Your task to perform on an android device: Add "razer blackwidow" to the cart on target Image 0: 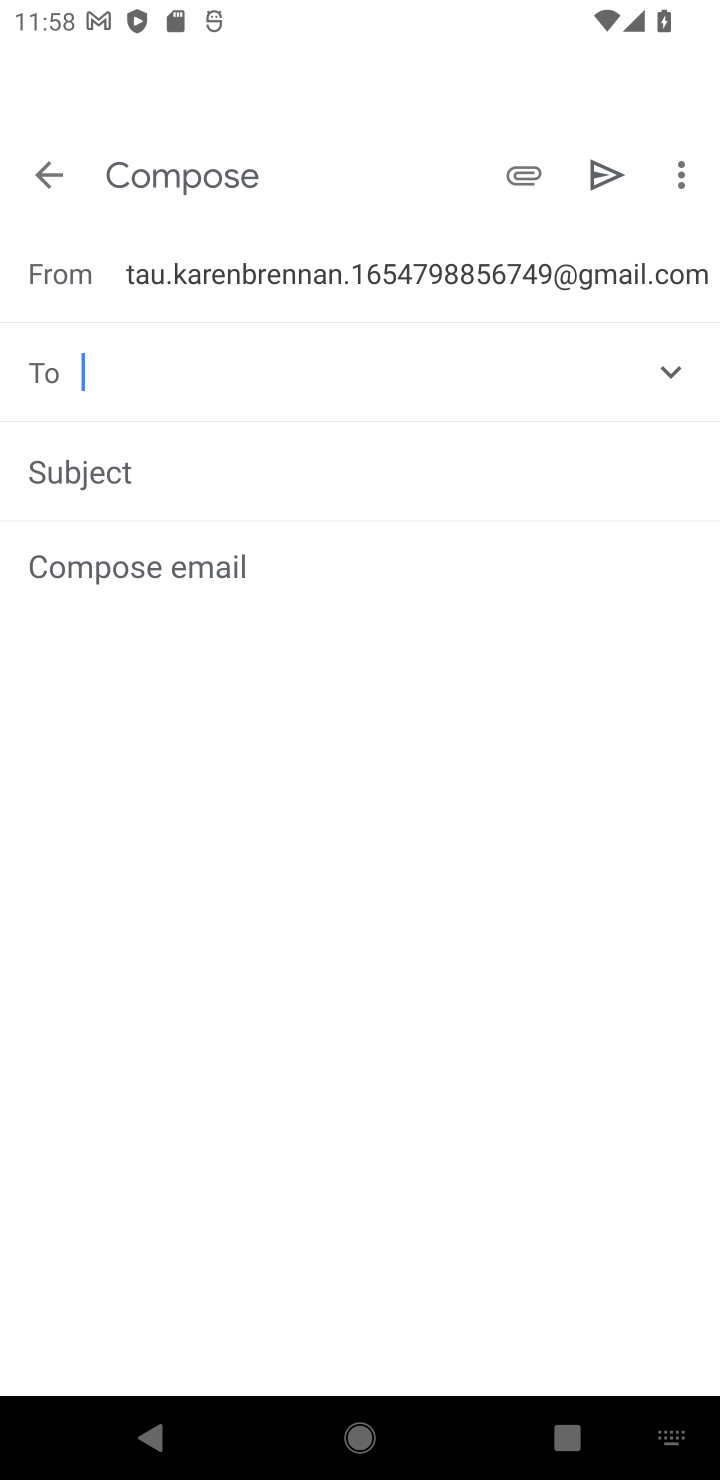
Step 0: press back button
Your task to perform on an android device: Add "razer blackwidow" to the cart on target Image 1: 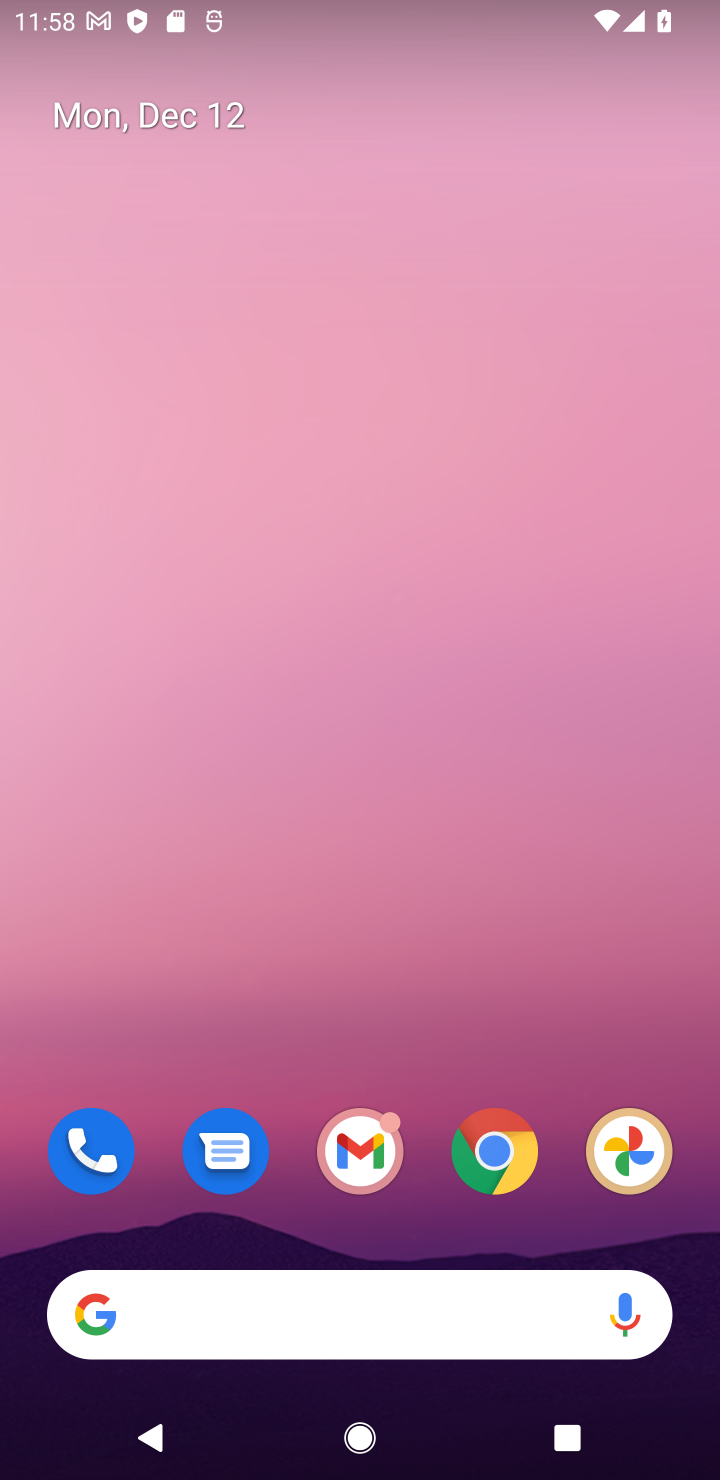
Step 1: drag from (385, 1303) to (405, 223)
Your task to perform on an android device: Add "razer blackwidow" to the cart on target Image 2: 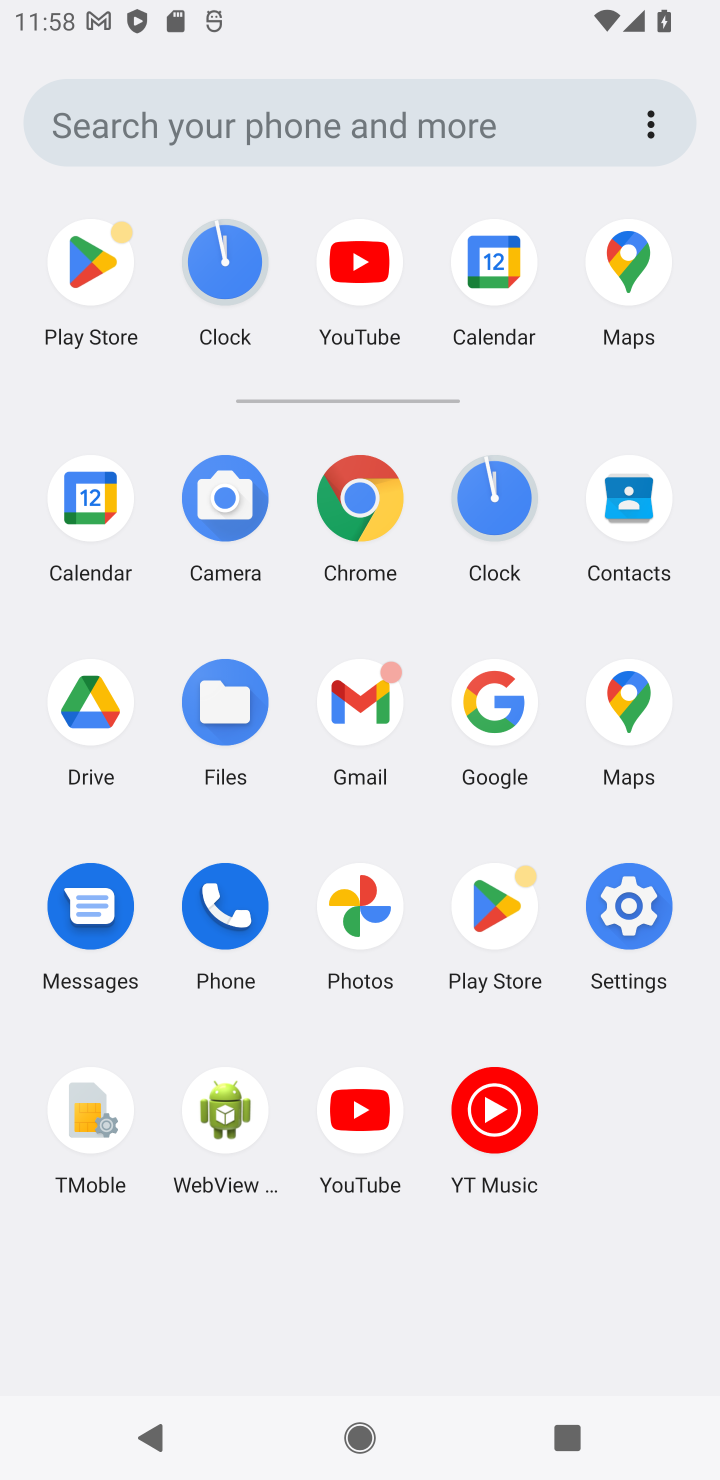
Step 2: click (487, 719)
Your task to perform on an android device: Add "razer blackwidow" to the cart on target Image 3: 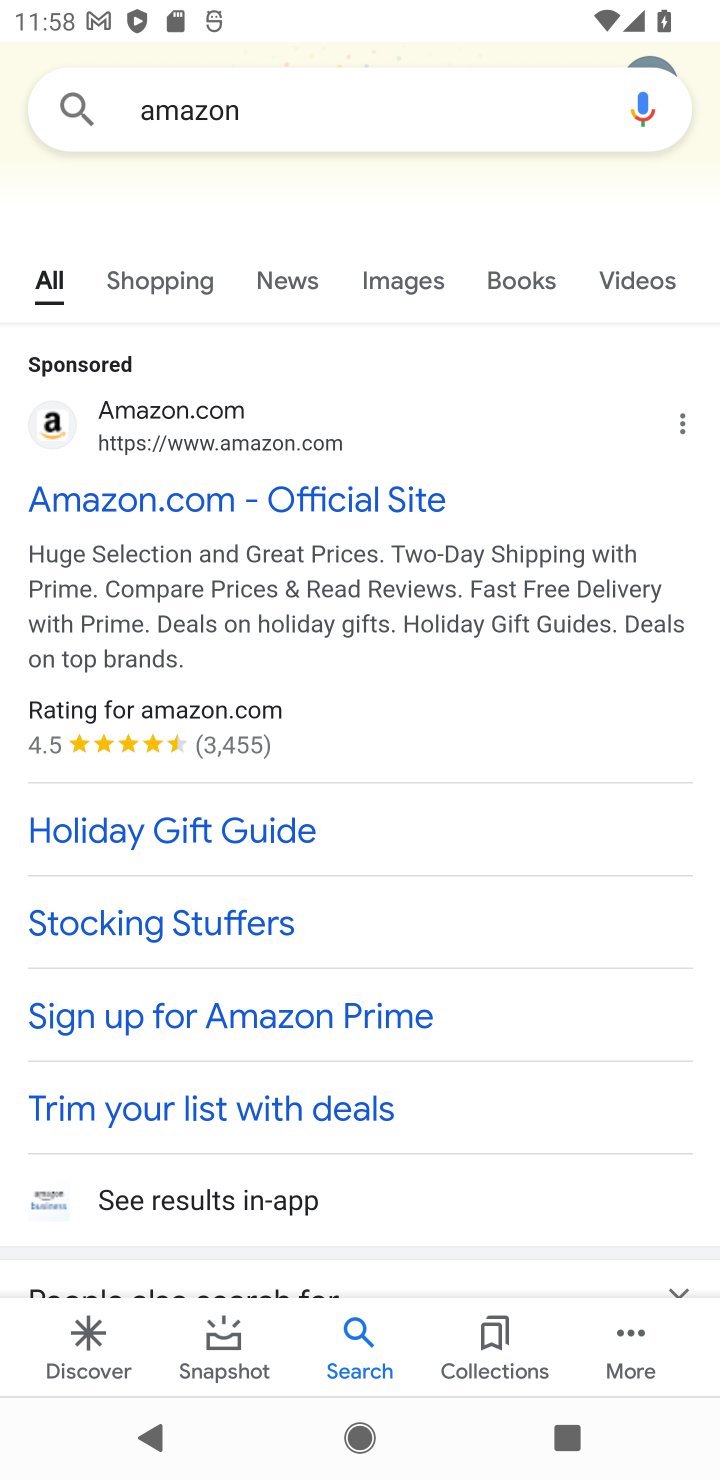
Step 3: click (184, 115)
Your task to perform on an android device: Add "razer blackwidow" to the cart on target Image 4: 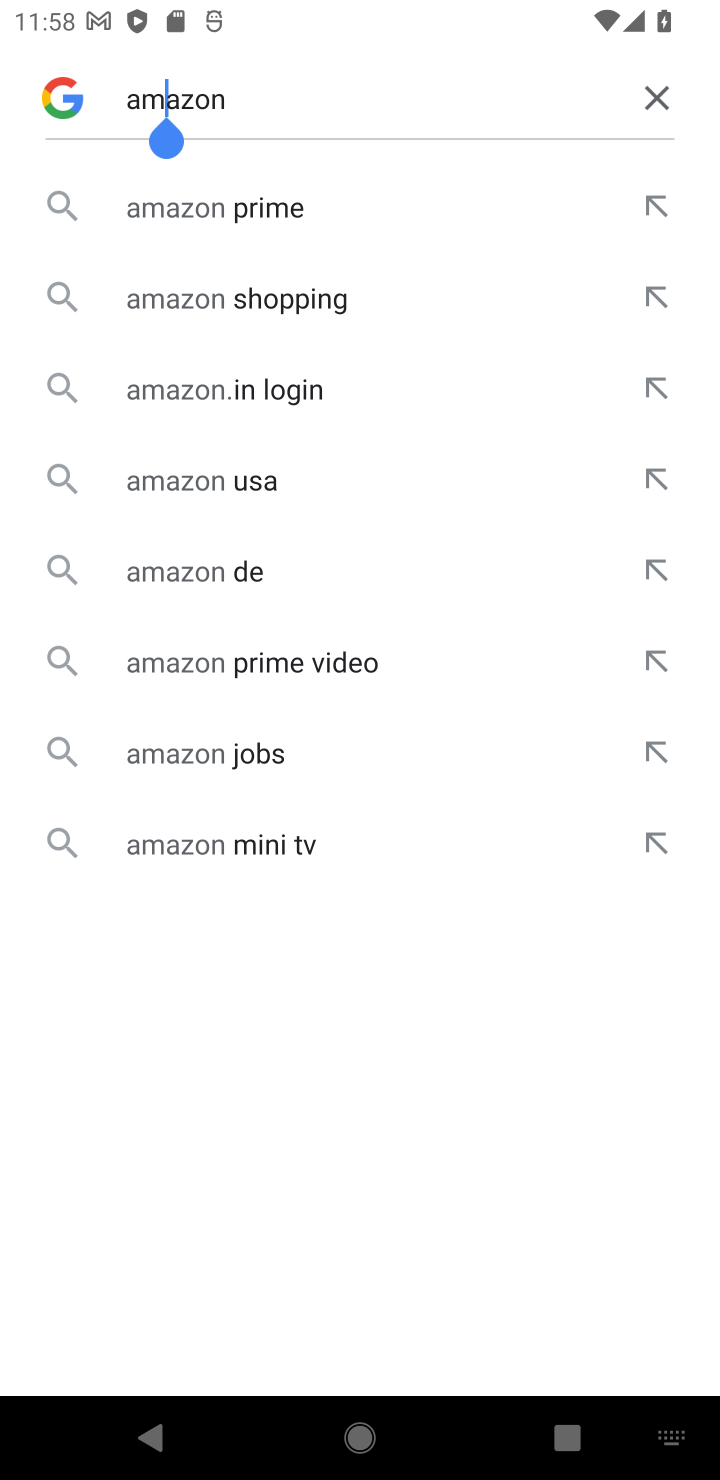
Step 4: click (645, 101)
Your task to perform on an android device: Add "razer blackwidow" to the cart on target Image 5: 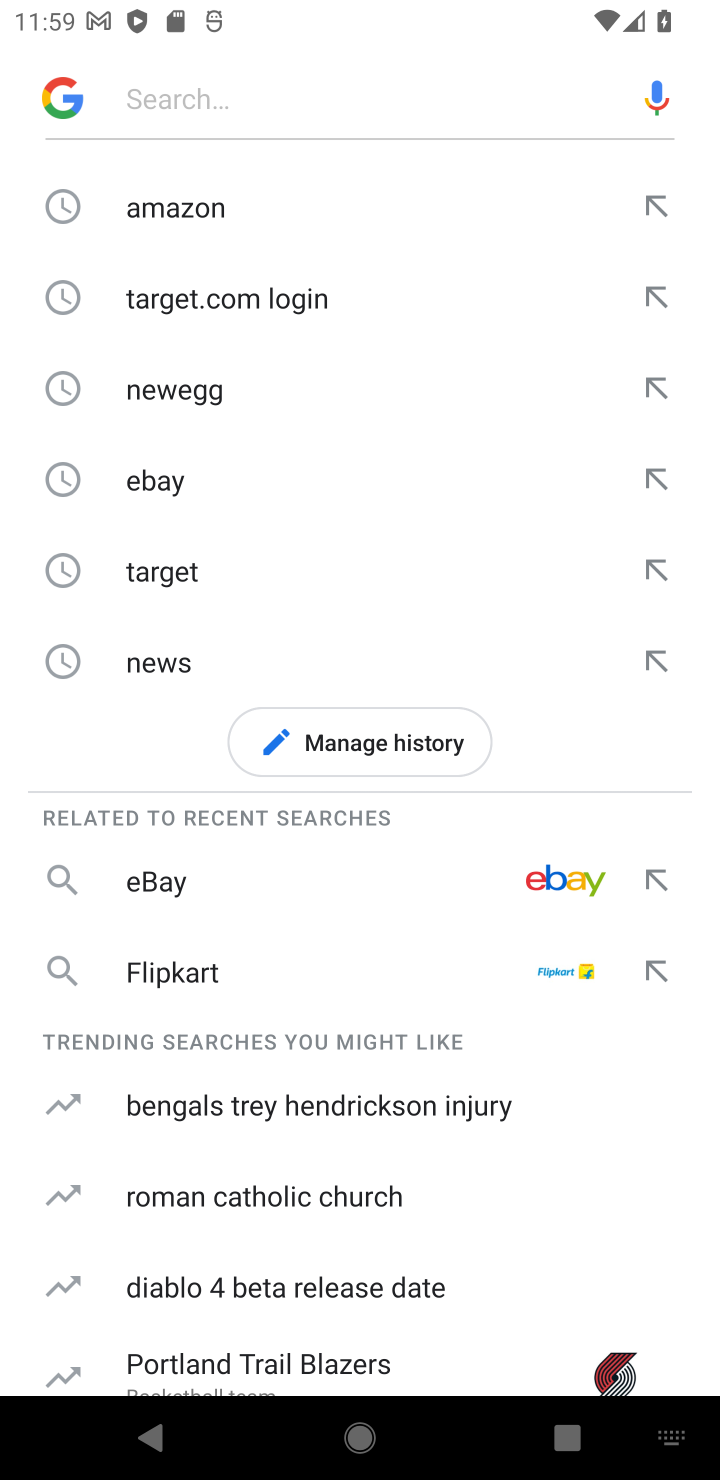
Step 5: click (142, 574)
Your task to perform on an android device: Add "razer blackwidow" to the cart on target Image 6: 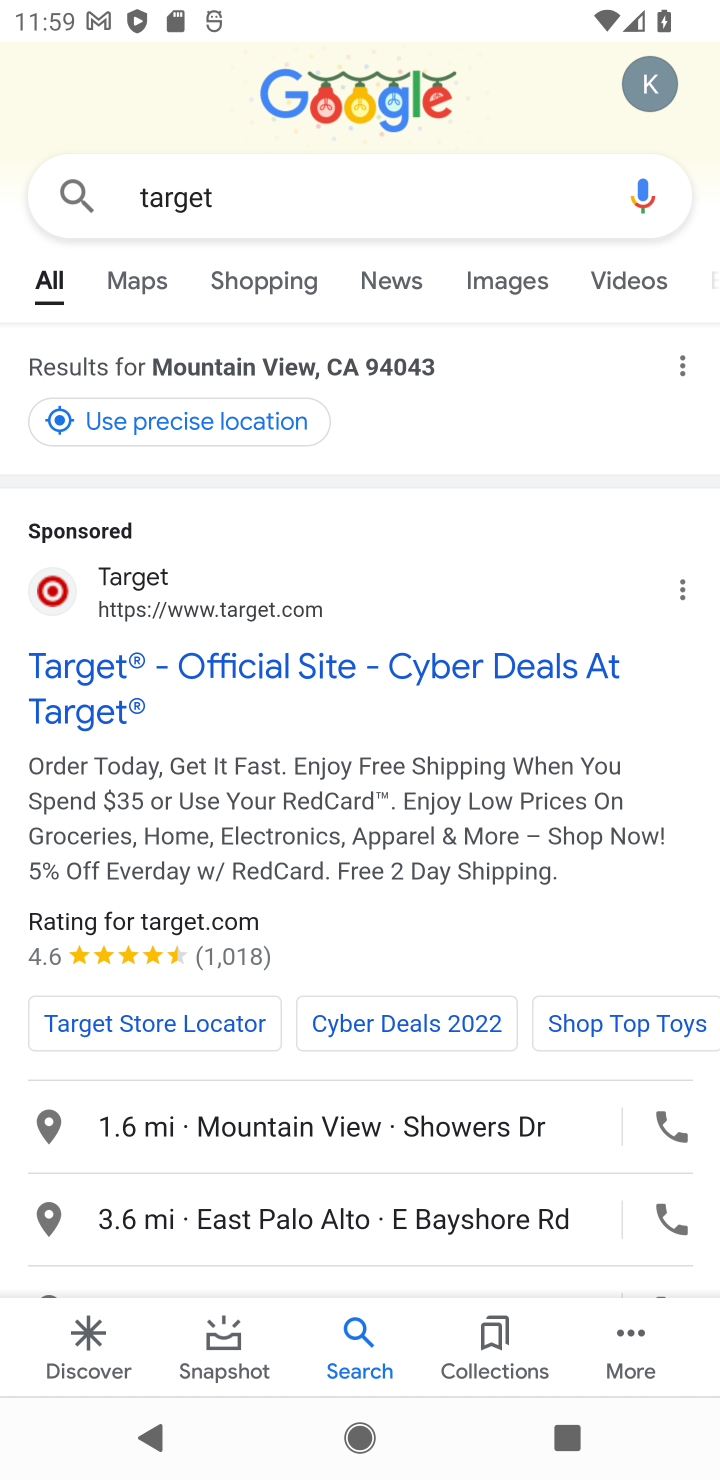
Step 6: click (166, 668)
Your task to perform on an android device: Add "razer blackwidow" to the cart on target Image 7: 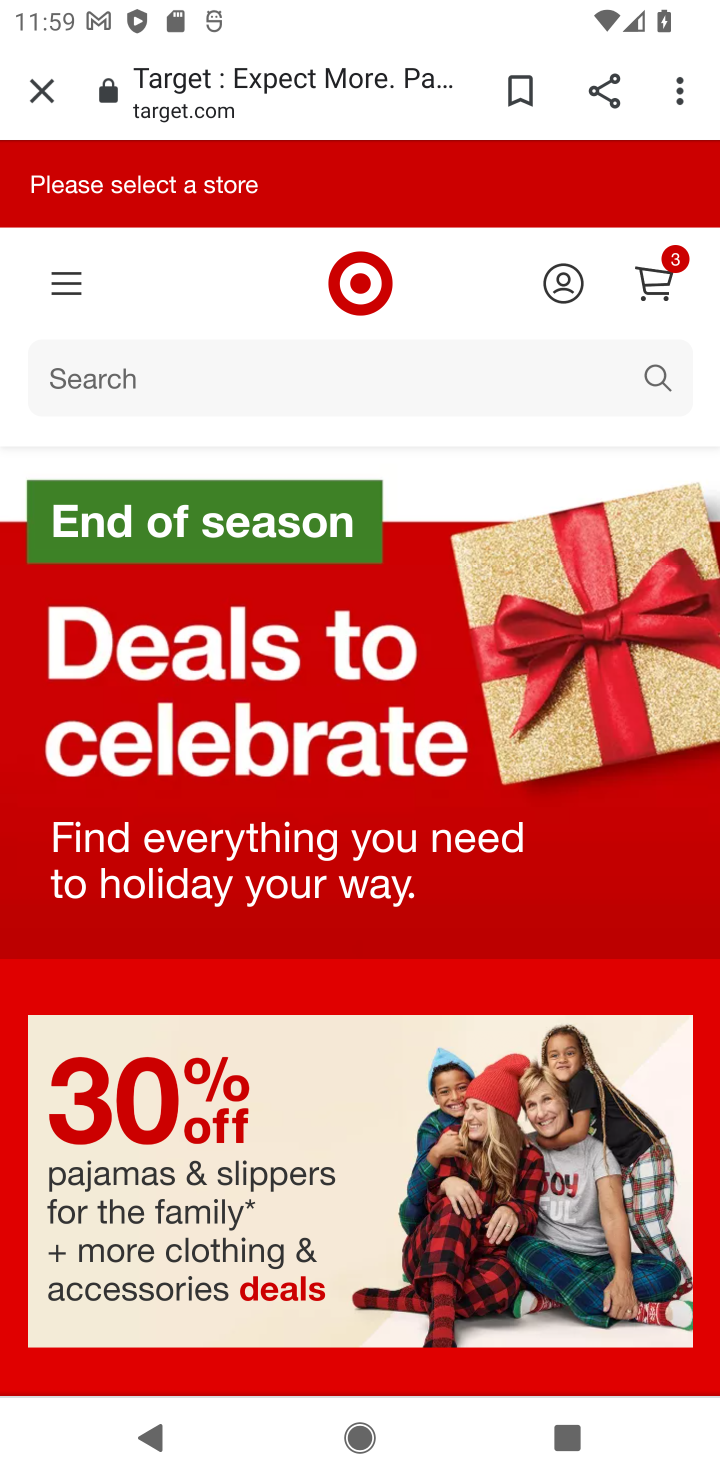
Step 7: click (153, 386)
Your task to perform on an android device: Add "razer blackwidow" to the cart on target Image 8: 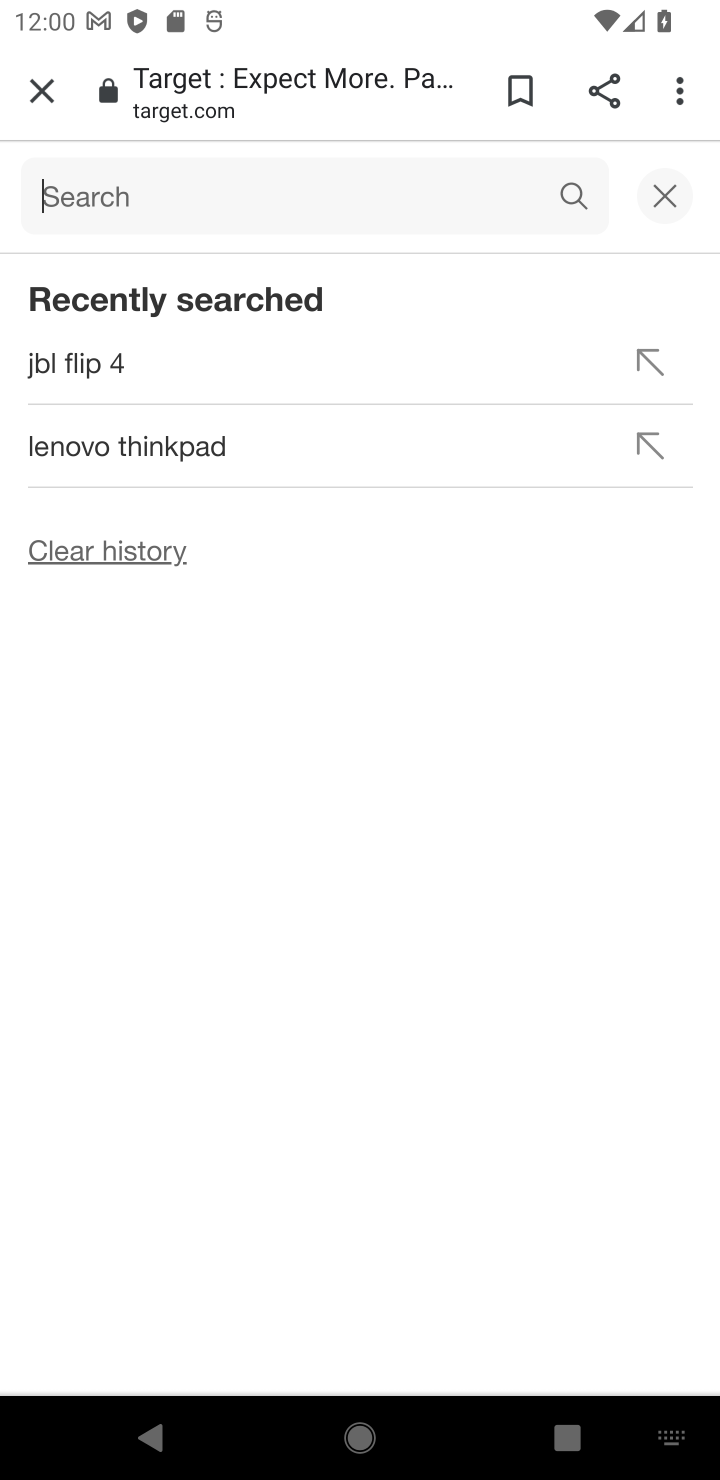
Step 8: click (572, 195)
Your task to perform on an android device: Add "razer blackwidow" to the cart on target Image 9: 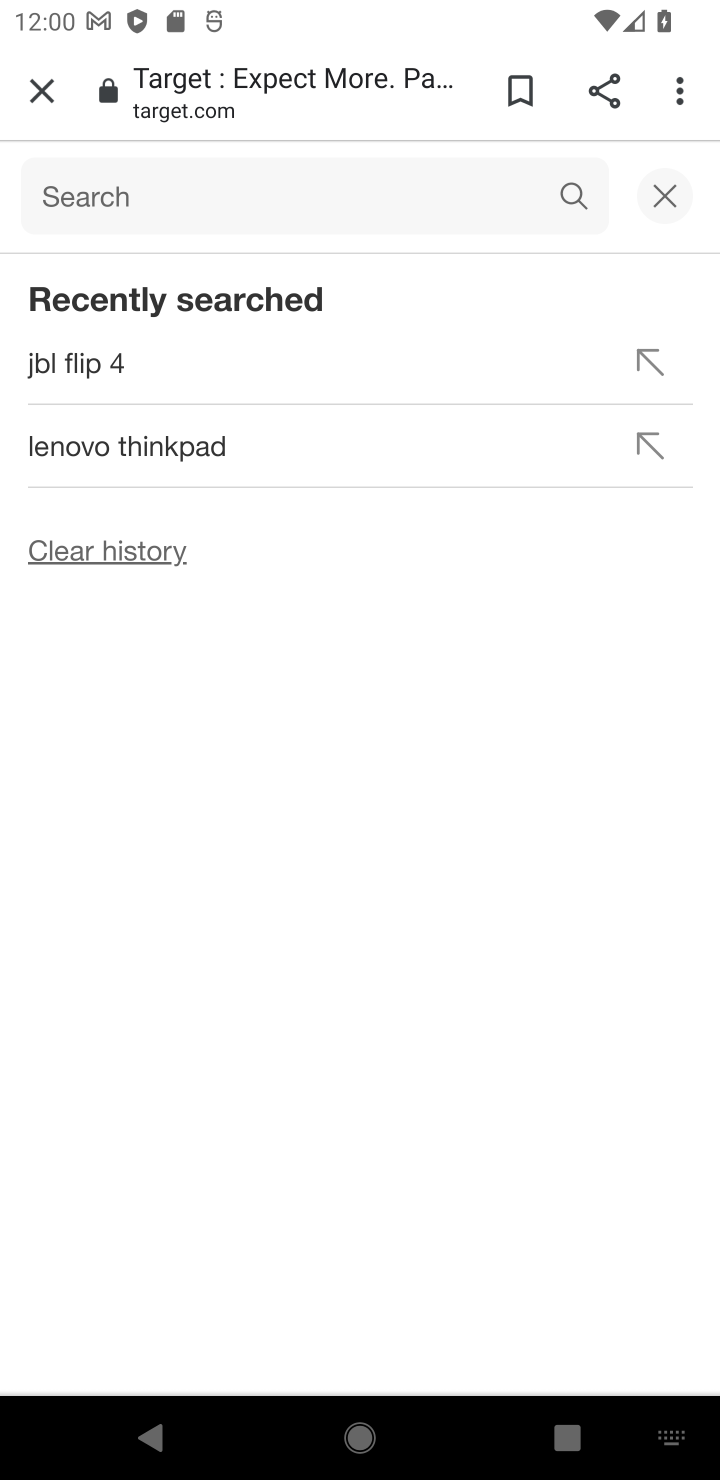
Step 9: type "razer blackwidow"
Your task to perform on an android device: Add "razer blackwidow" to the cart on target Image 10: 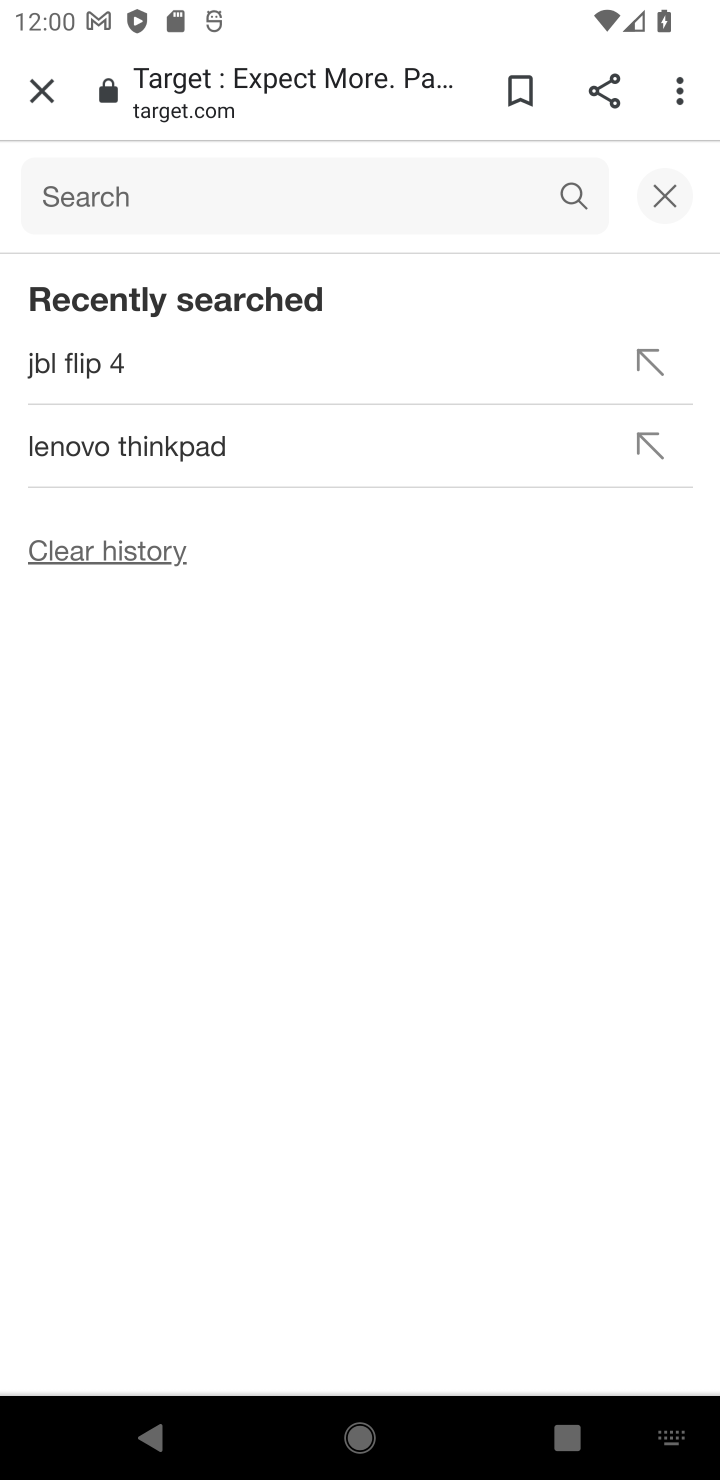
Step 10: click (572, 195)
Your task to perform on an android device: Add "razer blackwidow" to the cart on target Image 11: 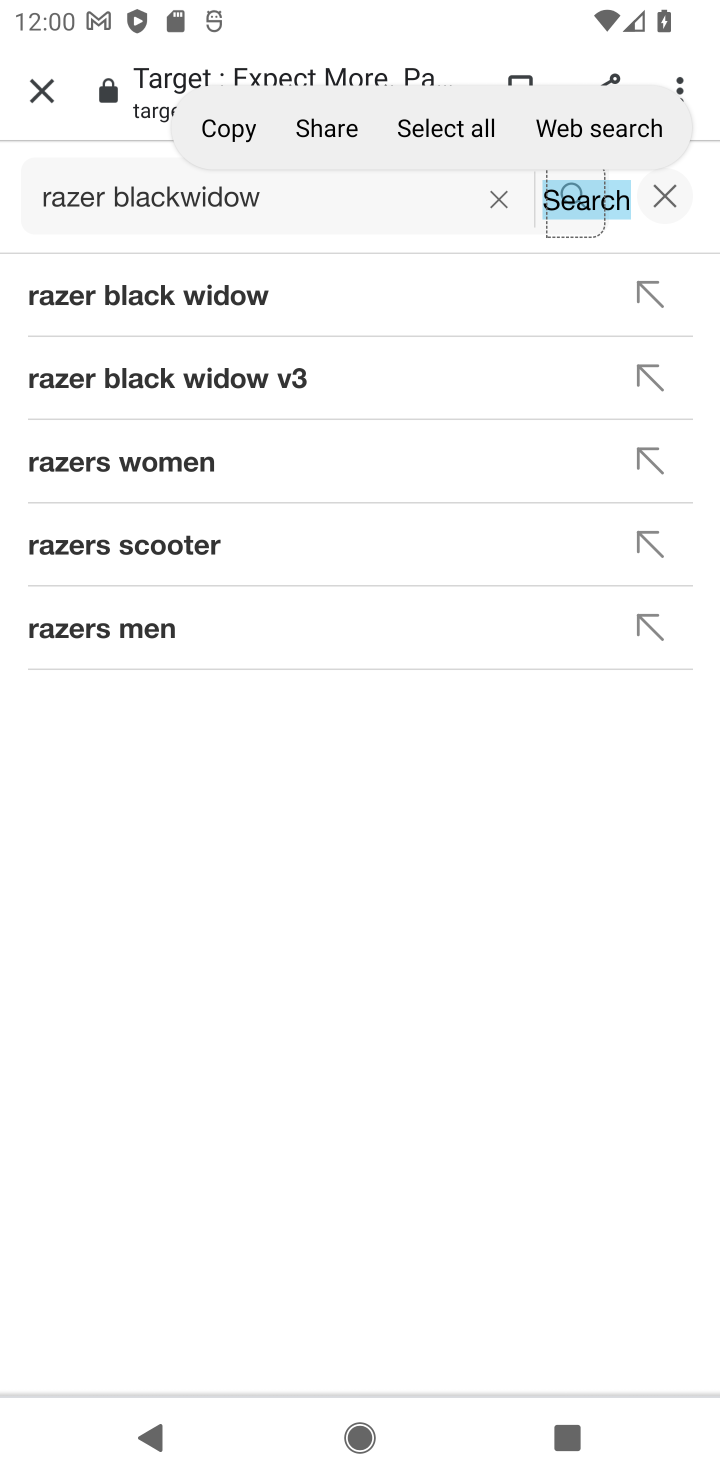
Step 11: click (226, 303)
Your task to perform on an android device: Add "razer blackwidow" to the cart on target Image 12: 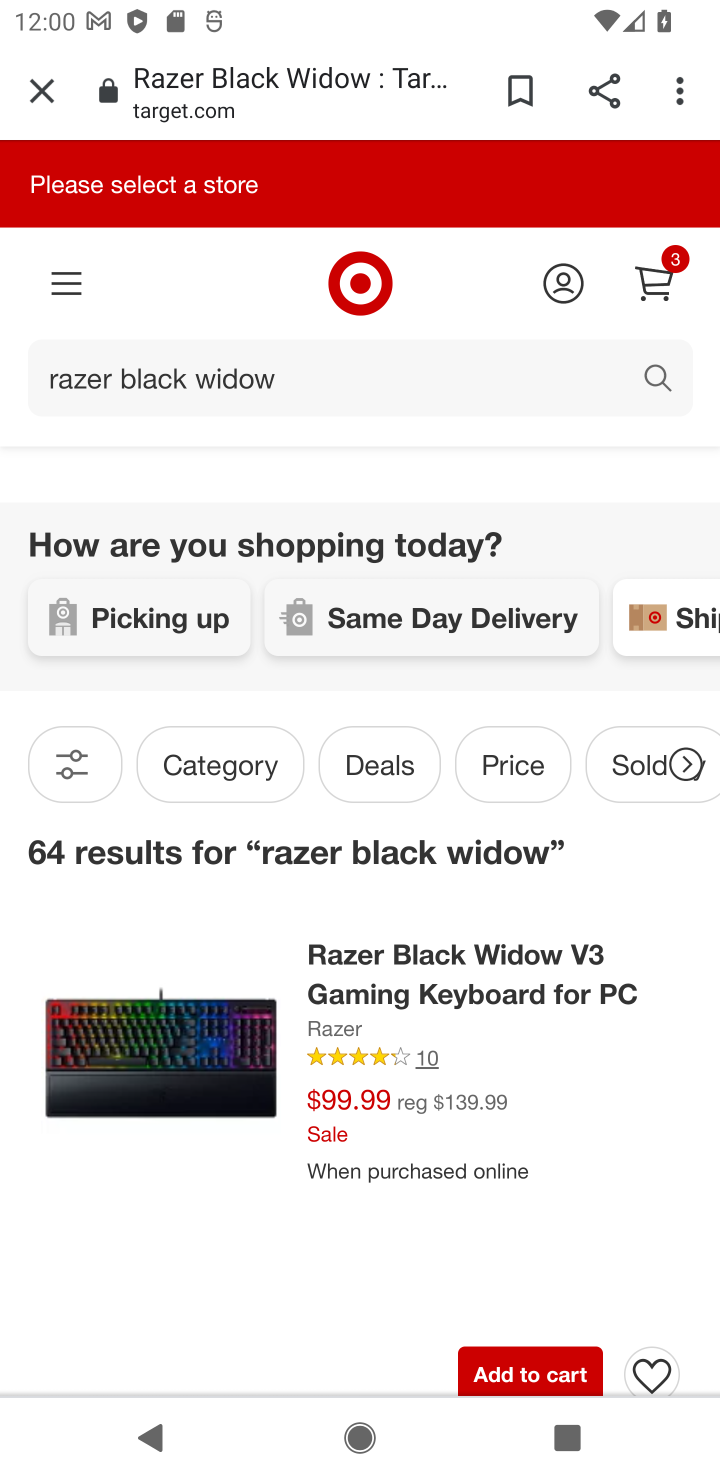
Step 12: click (508, 1376)
Your task to perform on an android device: Add "razer blackwidow" to the cart on target Image 13: 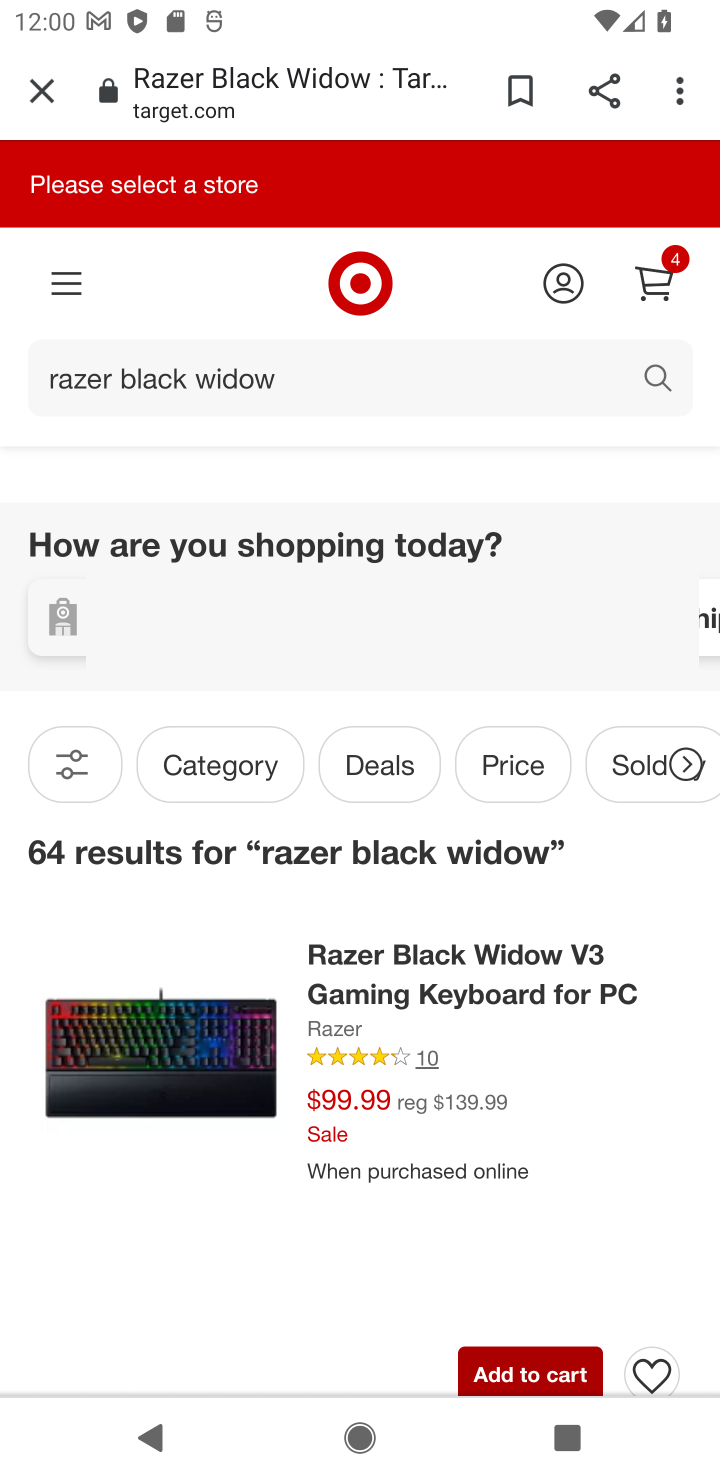
Step 13: click (533, 1373)
Your task to perform on an android device: Add "razer blackwidow" to the cart on target Image 14: 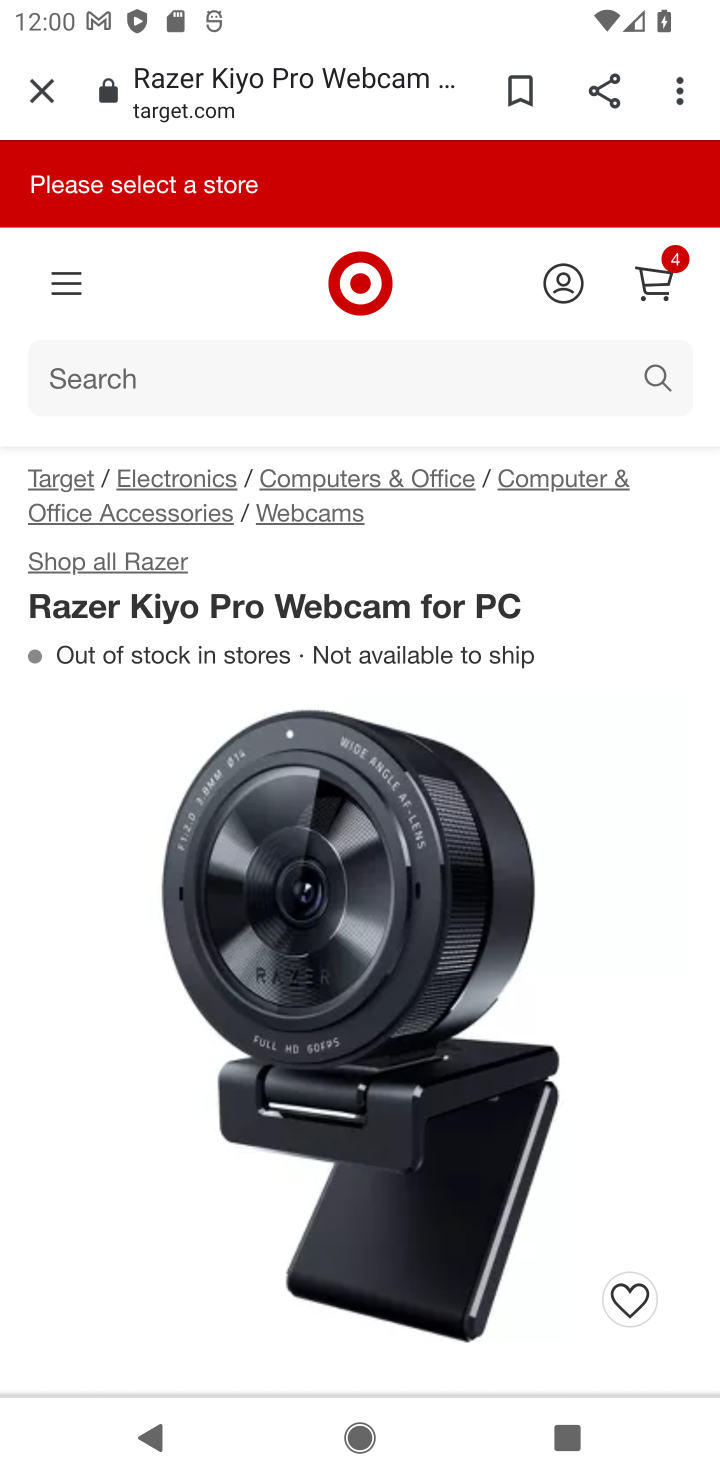
Step 14: click (668, 273)
Your task to perform on an android device: Add "razer blackwidow" to the cart on target Image 15: 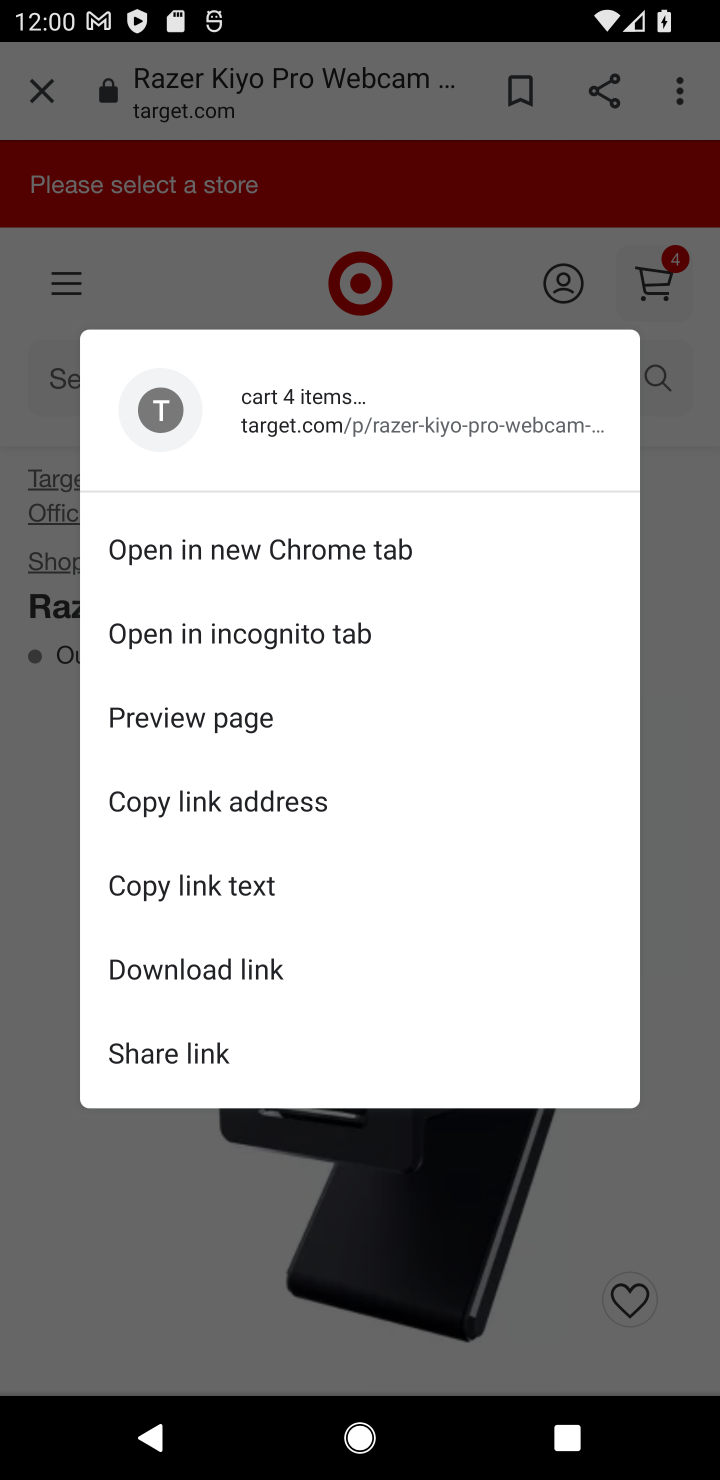
Step 15: click (222, 1173)
Your task to perform on an android device: Add "razer blackwidow" to the cart on target Image 16: 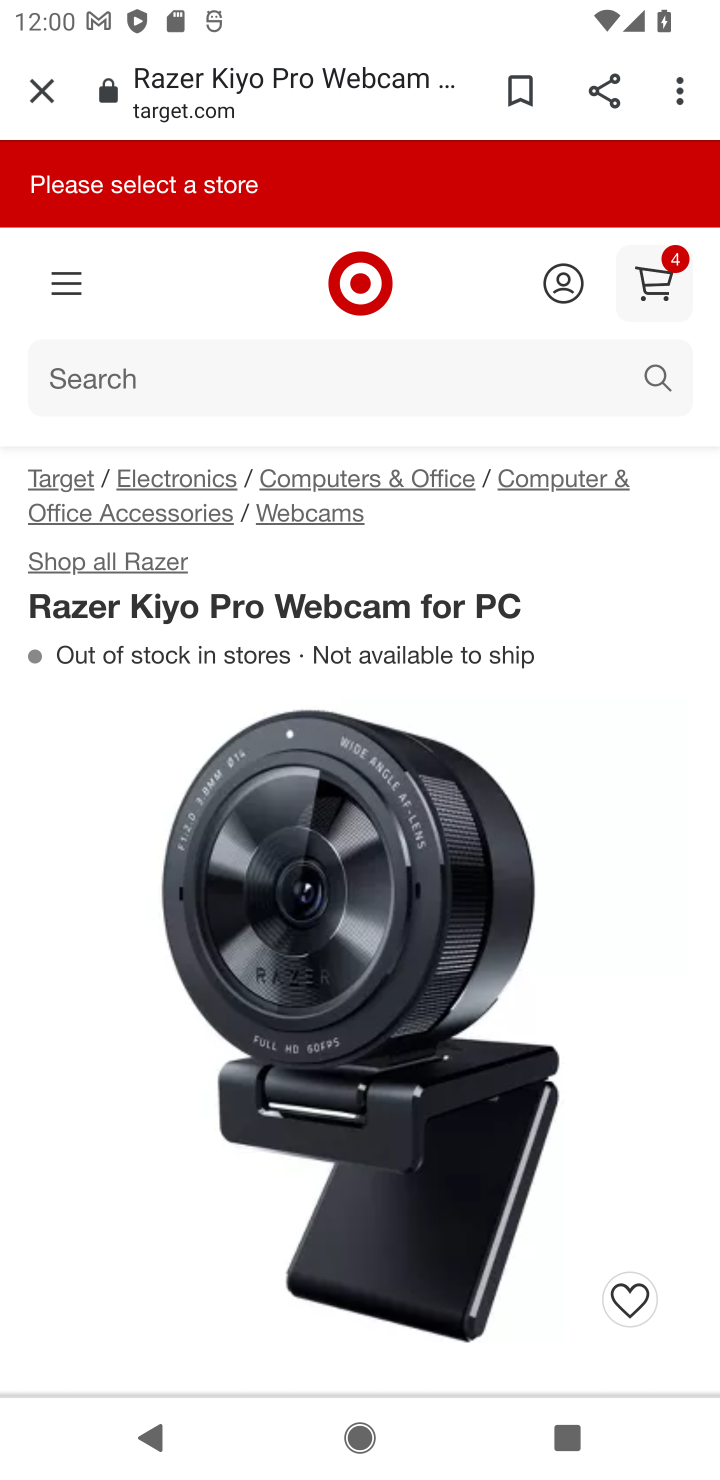
Step 16: click (645, 277)
Your task to perform on an android device: Add "razer blackwidow" to the cart on target Image 17: 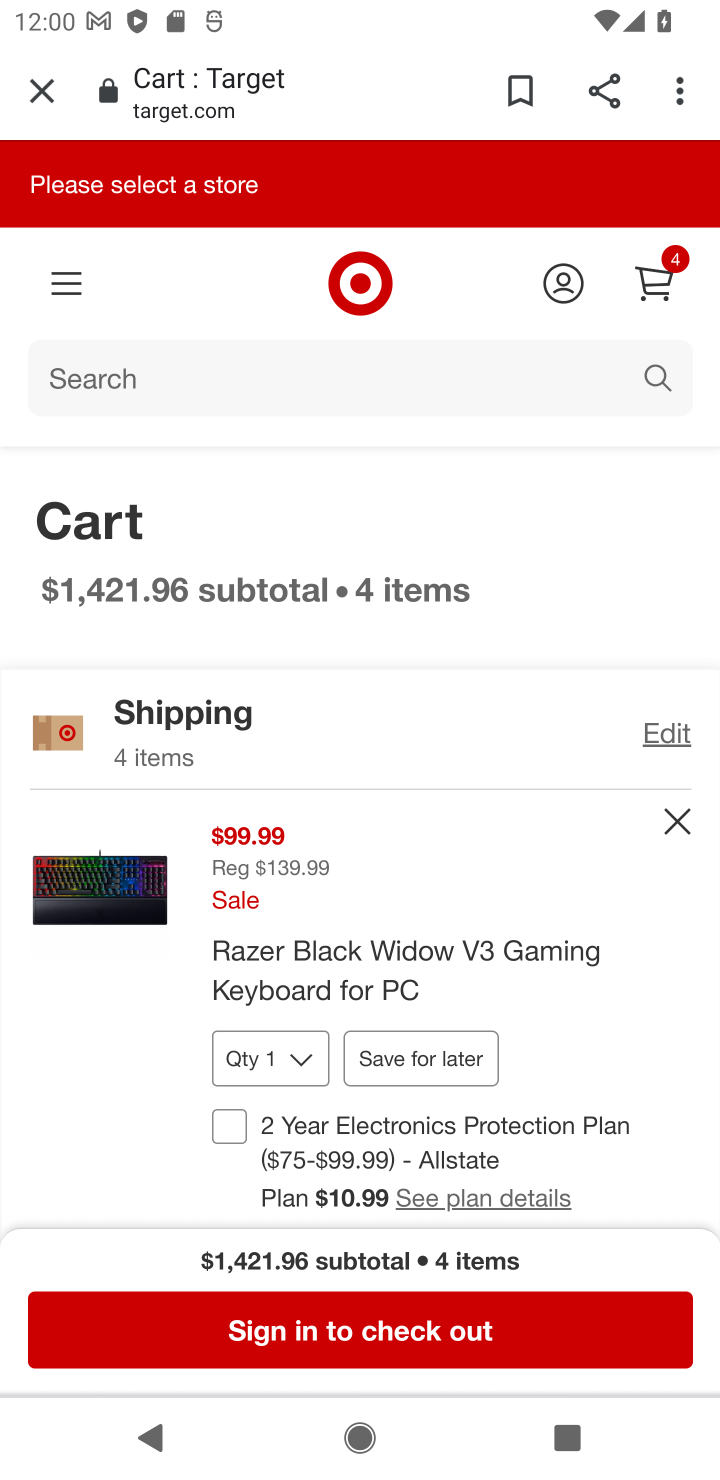
Step 17: click (471, 1333)
Your task to perform on an android device: Add "razer blackwidow" to the cart on target Image 18: 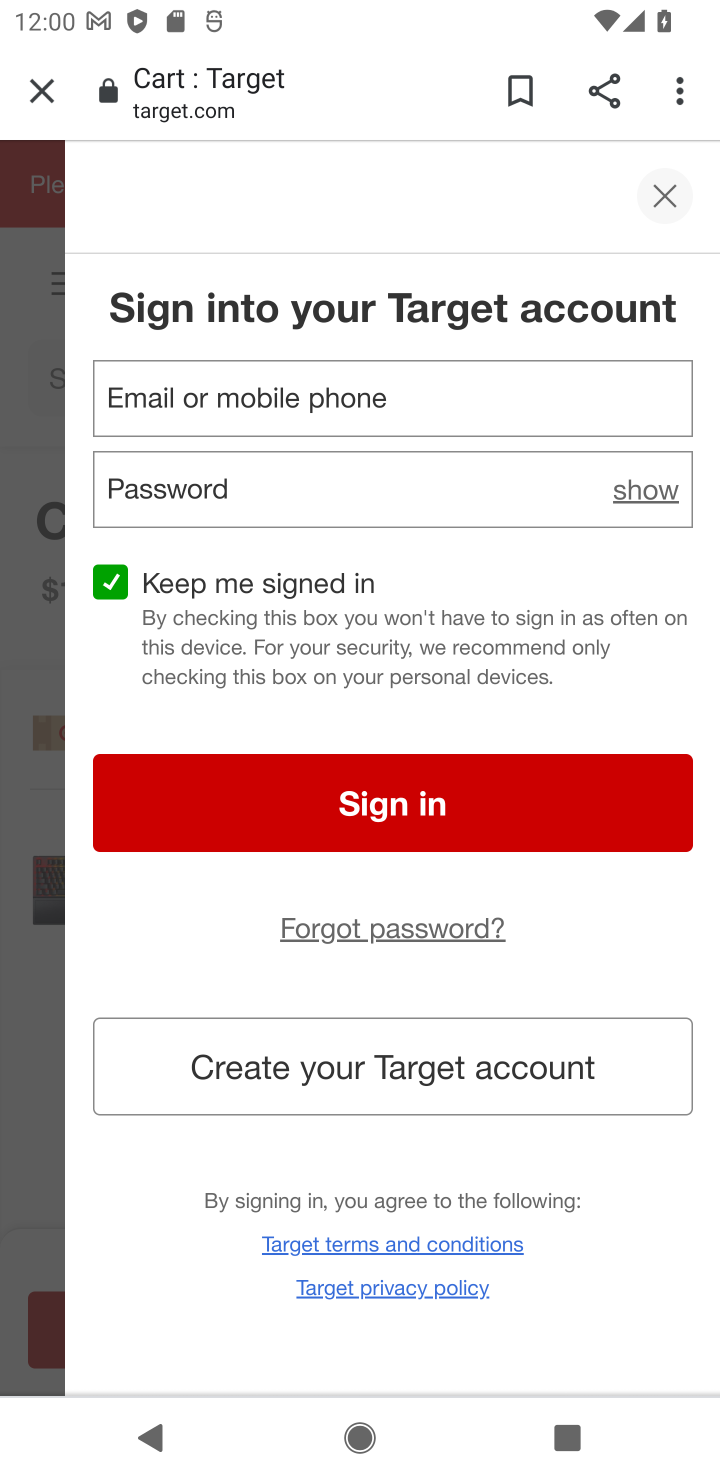
Step 18: task complete